Your task to perform on an android device: Is it going to rain today? Image 0: 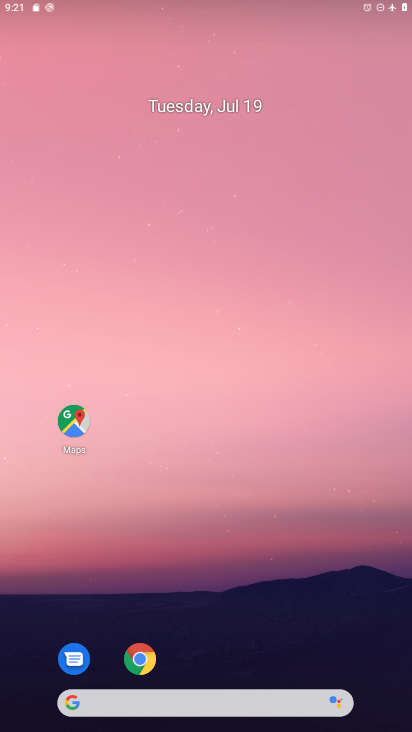
Step 0: drag from (299, 647) to (218, 161)
Your task to perform on an android device: Is it going to rain today? Image 1: 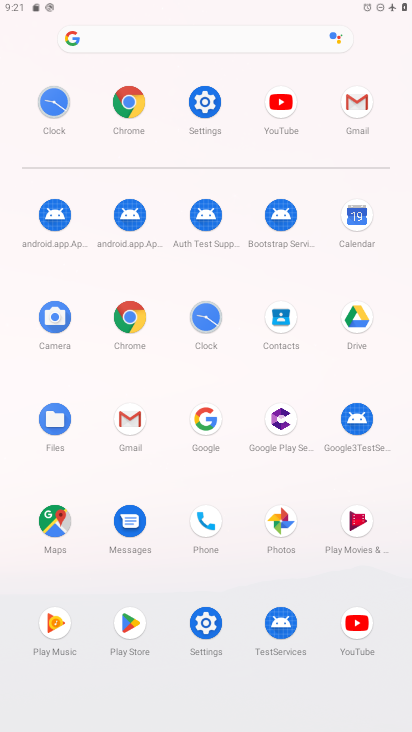
Step 1: click (133, 96)
Your task to perform on an android device: Is it going to rain today? Image 2: 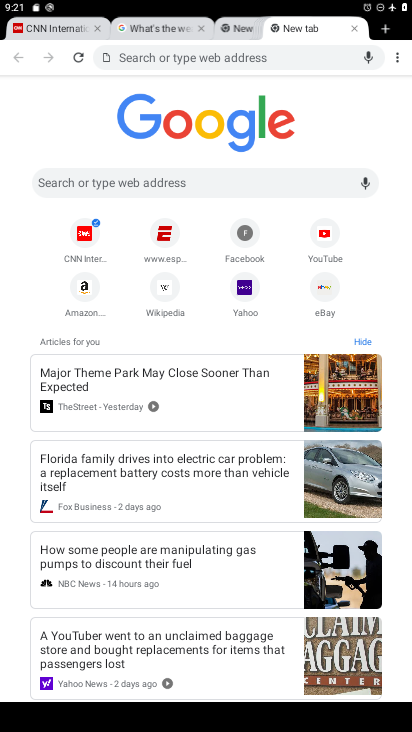
Step 2: drag from (86, 728) to (228, 731)
Your task to perform on an android device: Is it going to rain today? Image 3: 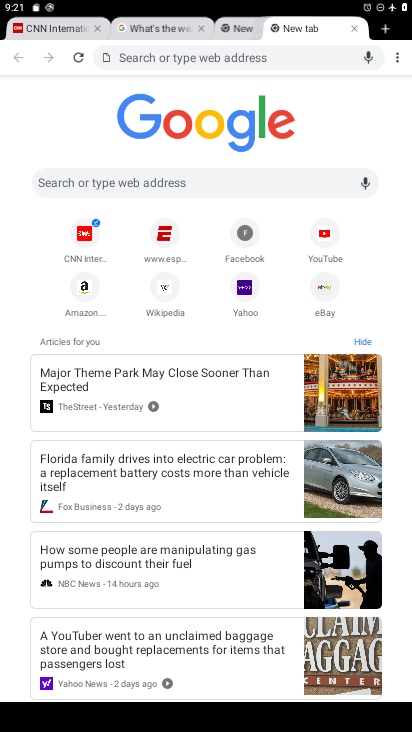
Step 3: click (176, 178)
Your task to perform on an android device: Is it going to rain today? Image 4: 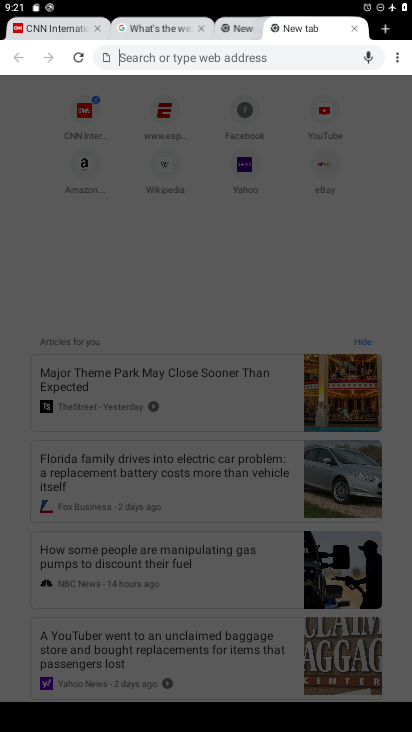
Step 4: type "Is it going to rain today "
Your task to perform on an android device: Is it going to rain today? Image 5: 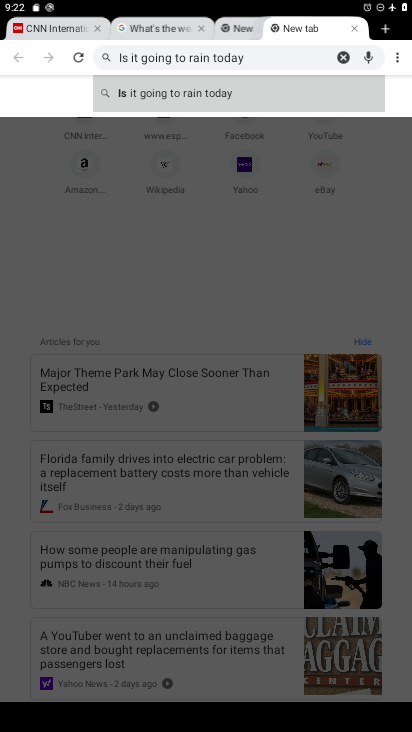
Step 5: click (179, 93)
Your task to perform on an android device: Is it going to rain today? Image 6: 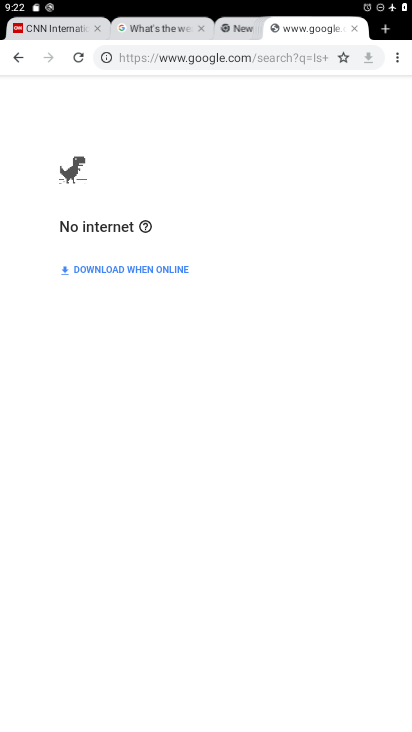
Step 6: task complete